Your task to perform on an android device: visit the assistant section in the google photos Image 0: 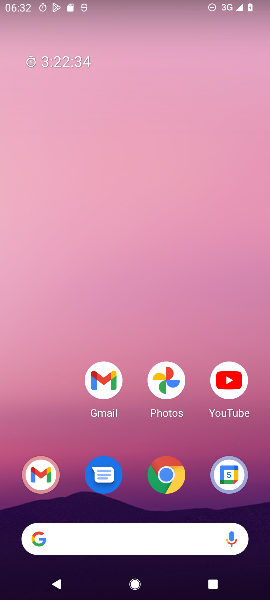
Step 0: press home button
Your task to perform on an android device: visit the assistant section in the google photos Image 1: 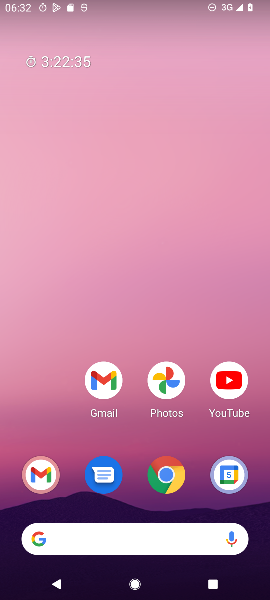
Step 1: drag from (69, 447) to (62, 225)
Your task to perform on an android device: visit the assistant section in the google photos Image 2: 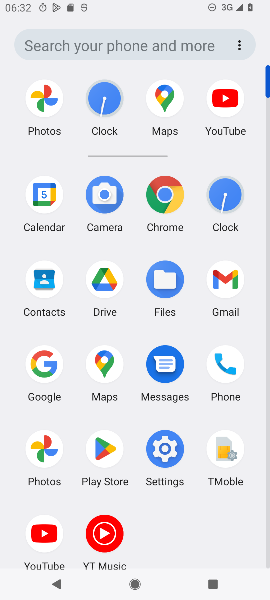
Step 2: click (50, 444)
Your task to perform on an android device: visit the assistant section in the google photos Image 3: 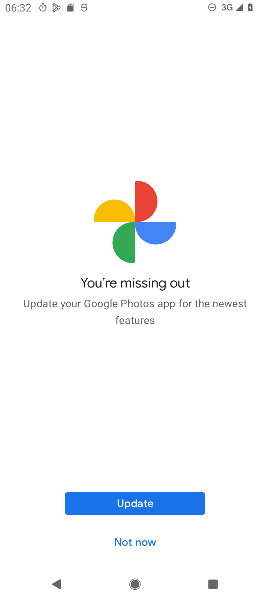
Step 3: click (144, 539)
Your task to perform on an android device: visit the assistant section in the google photos Image 4: 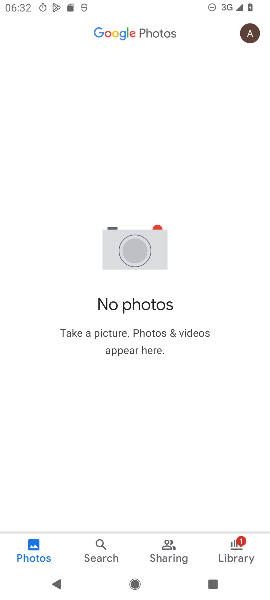
Step 4: click (231, 544)
Your task to perform on an android device: visit the assistant section in the google photos Image 5: 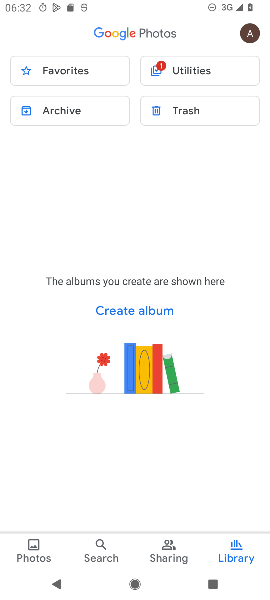
Step 5: task complete